Your task to perform on an android device: Go to battery settings Image 0: 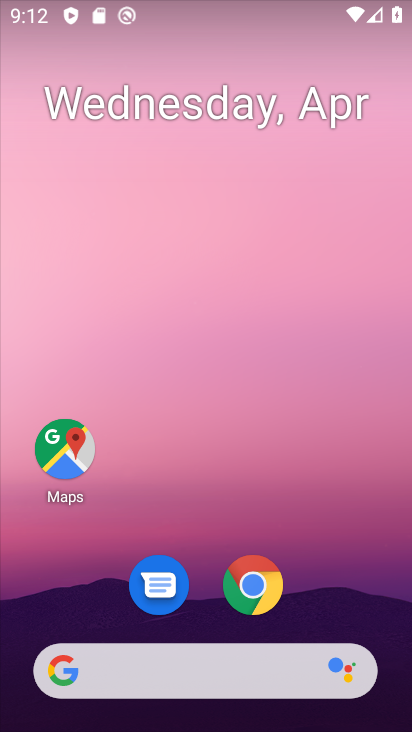
Step 0: drag from (358, 572) to (340, 125)
Your task to perform on an android device: Go to battery settings Image 1: 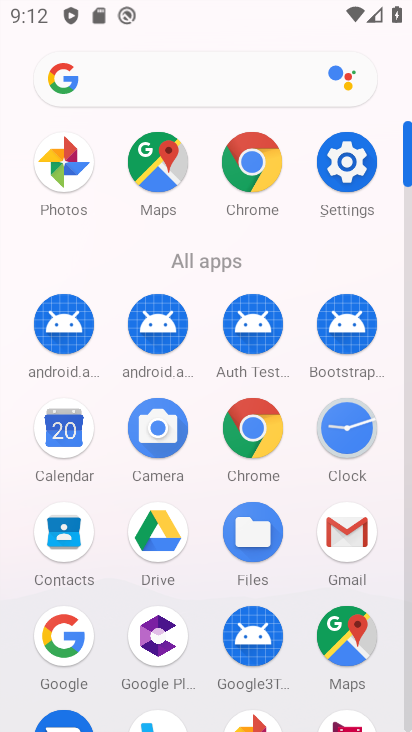
Step 1: click (343, 170)
Your task to perform on an android device: Go to battery settings Image 2: 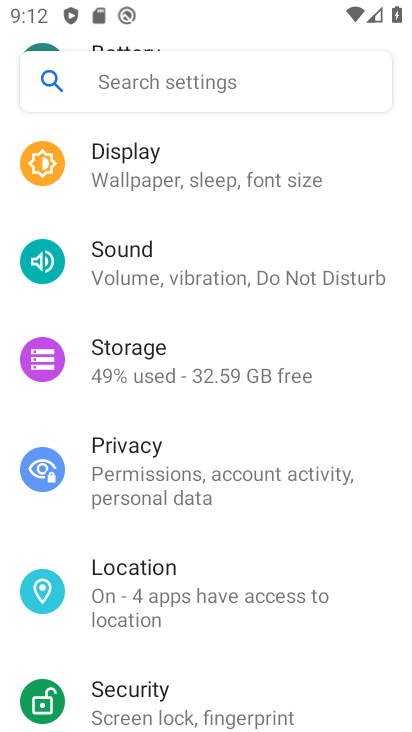
Step 2: drag from (259, 224) to (255, 633)
Your task to perform on an android device: Go to battery settings Image 3: 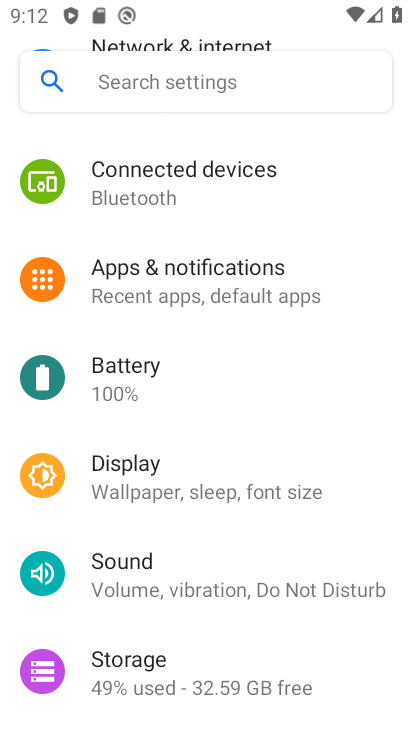
Step 3: click (220, 368)
Your task to perform on an android device: Go to battery settings Image 4: 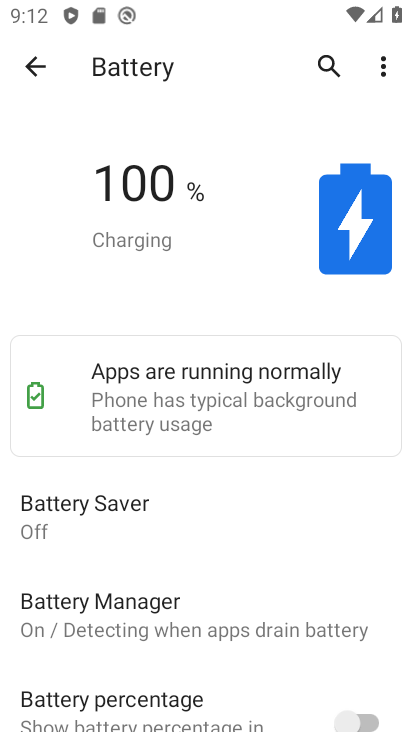
Step 4: task complete